Your task to perform on an android device: install app "Facebook Messenger" Image 0: 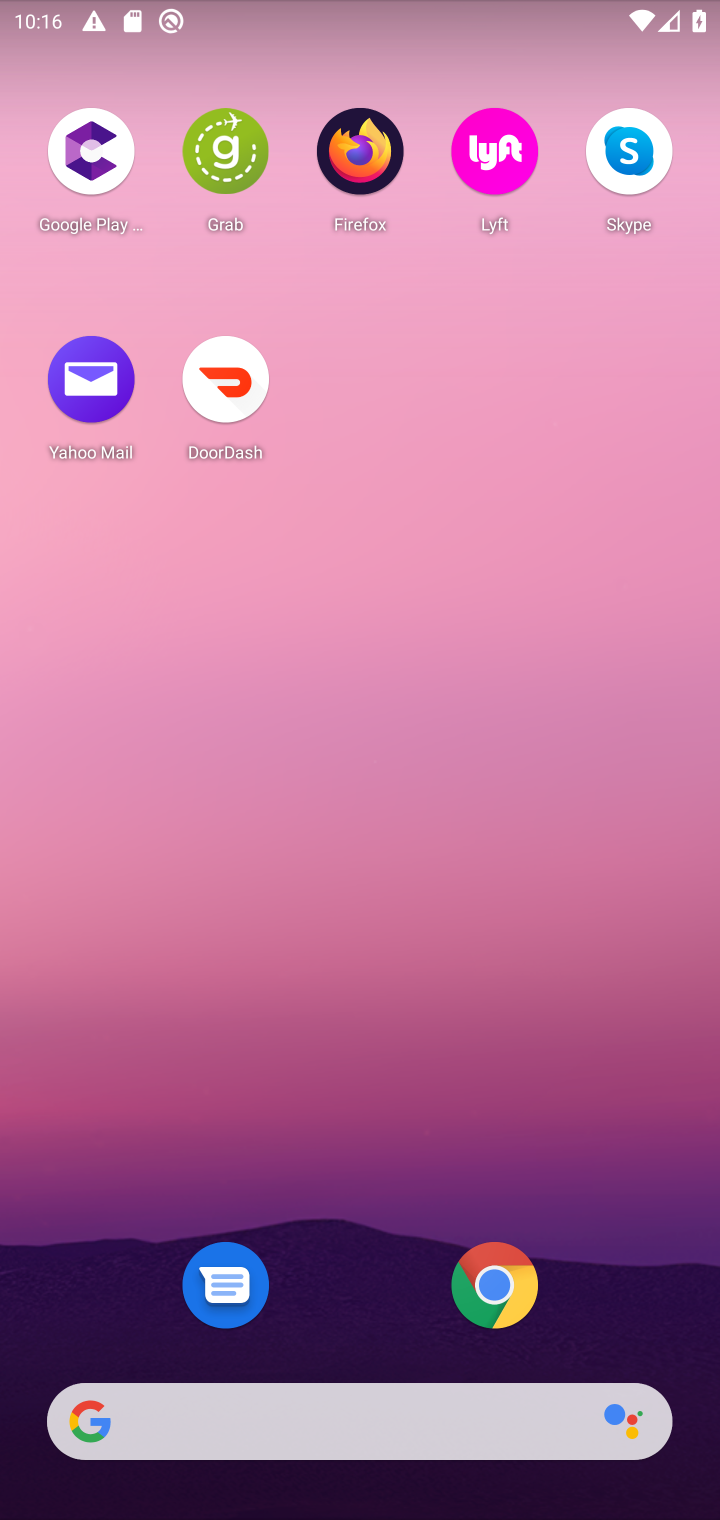
Step 0: drag from (596, 1293) to (407, 129)
Your task to perform on an android device: install app "Facebook Messenger" Image 1: 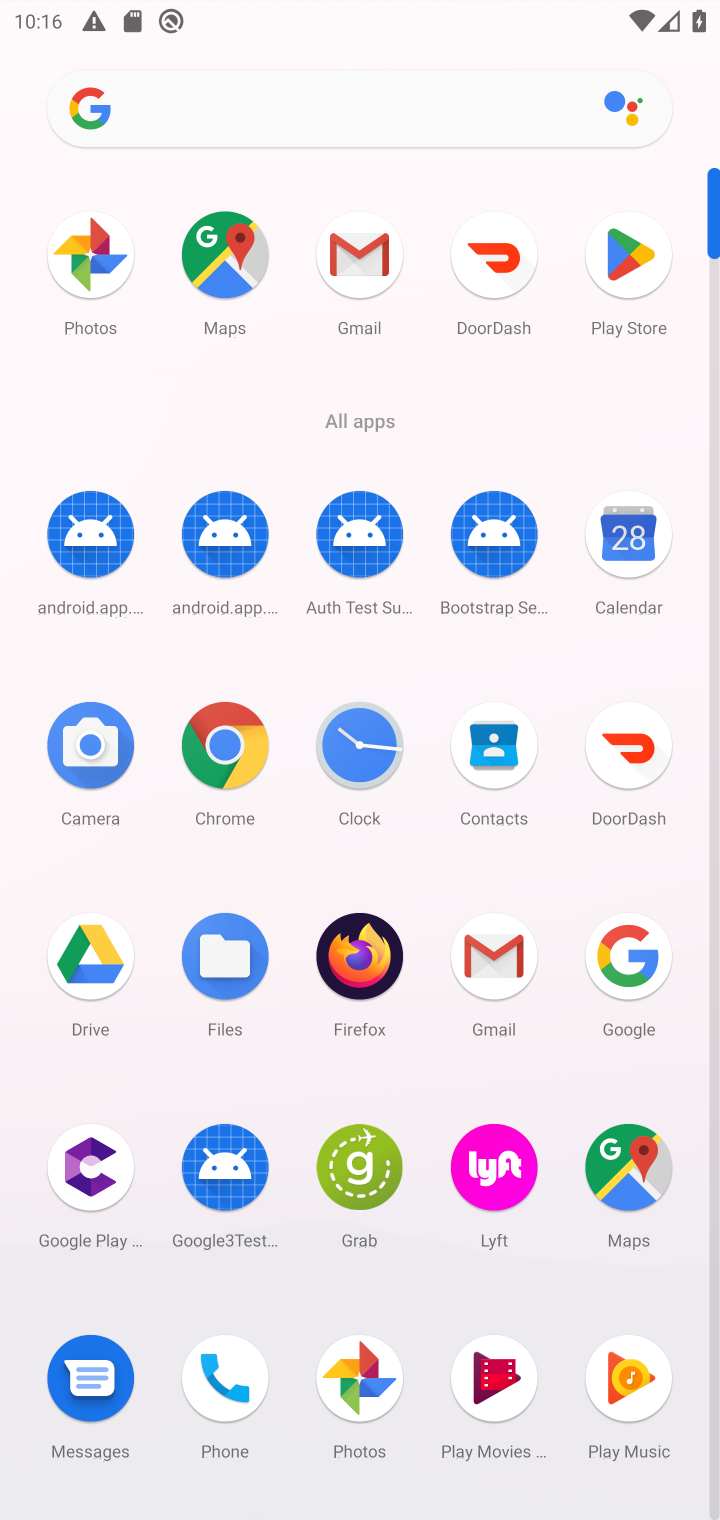
Step 1: click (621, 283)
Your task to perform on an android device: install app "Facebook Messenger" Image 2: 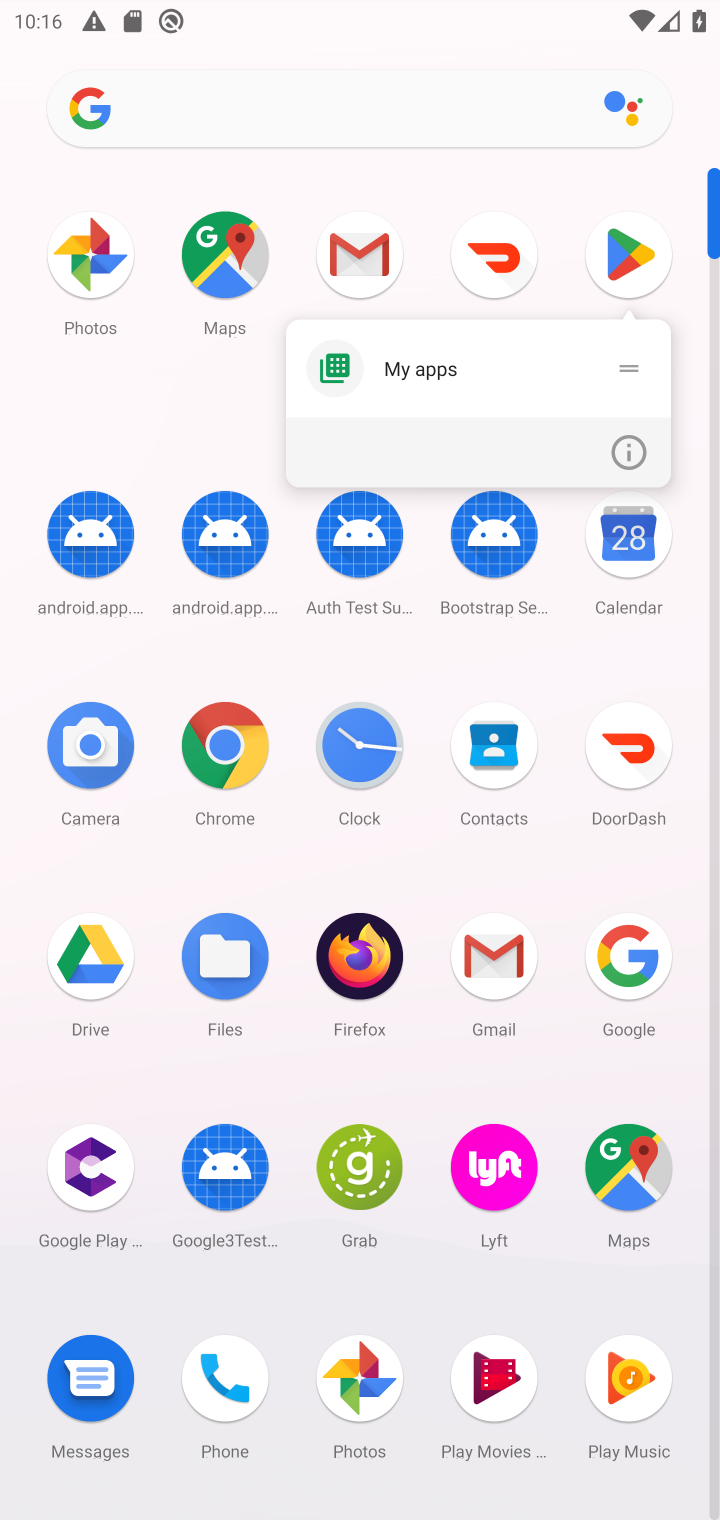
Step 2: click (621, 263)
Your task to perform on an android device: install app "Facebook Messenger" Image 3: 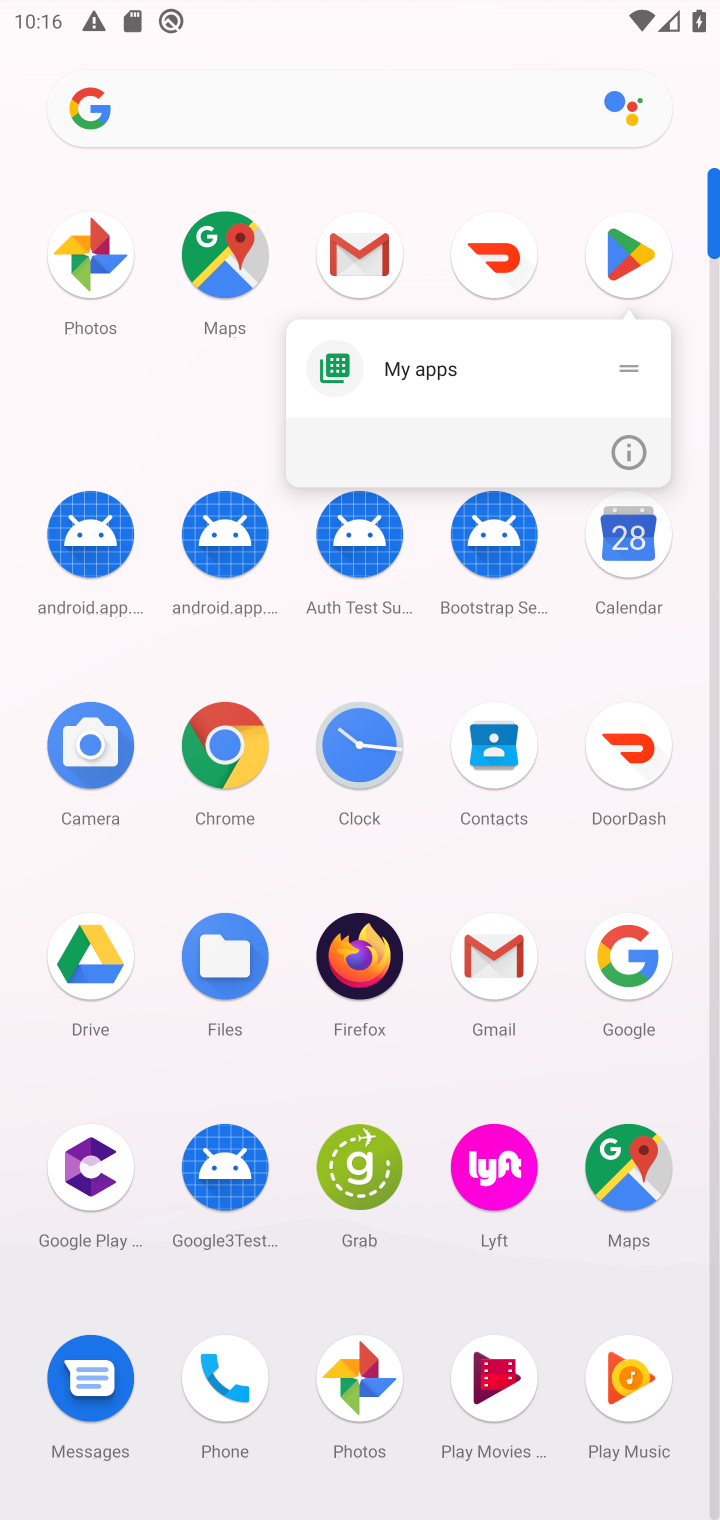
Step 3: click (632, 268)
Your task to perform on an android device: install app "Facebook Messenger" Image 4: 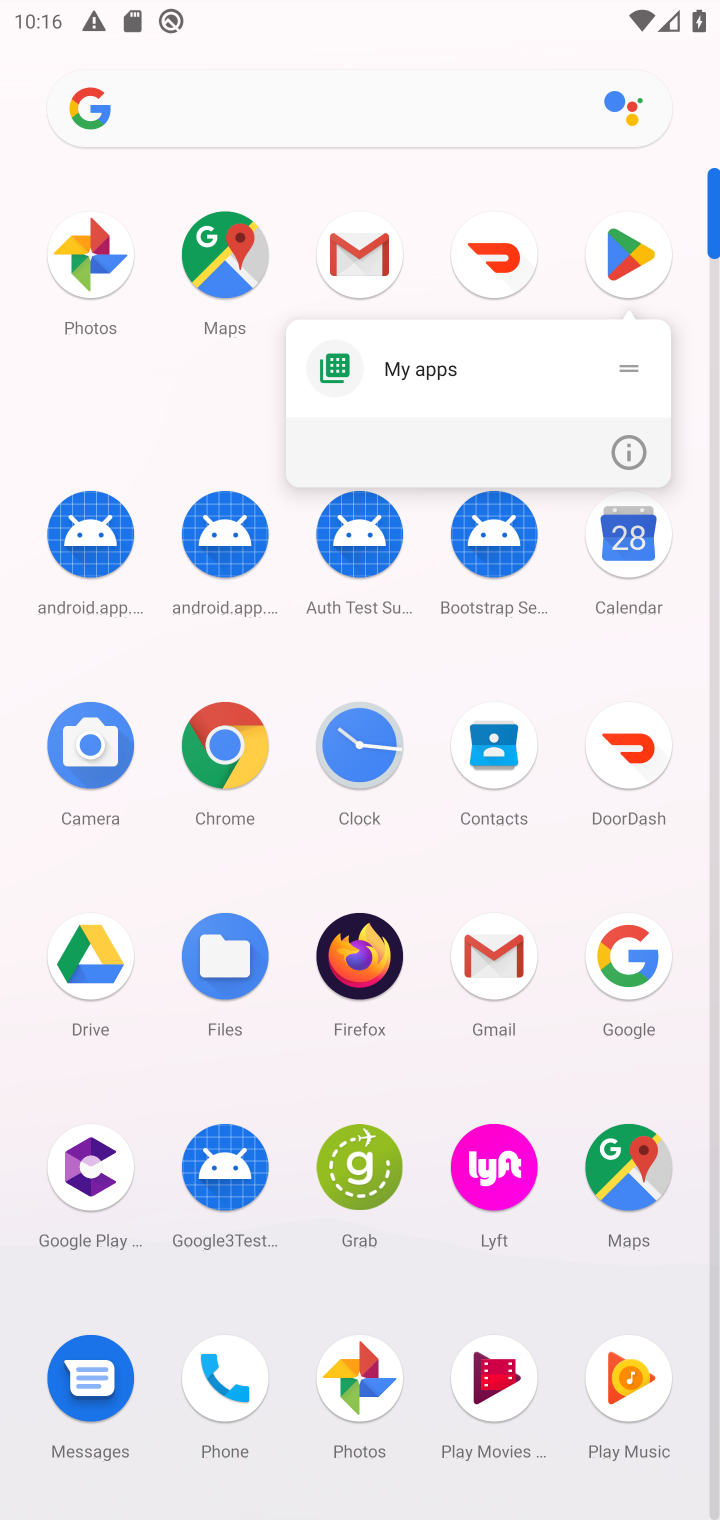
Step 4: click (560, 1039)
Your task to perform on an android device: install app "Facebook Messenger" Image 5: 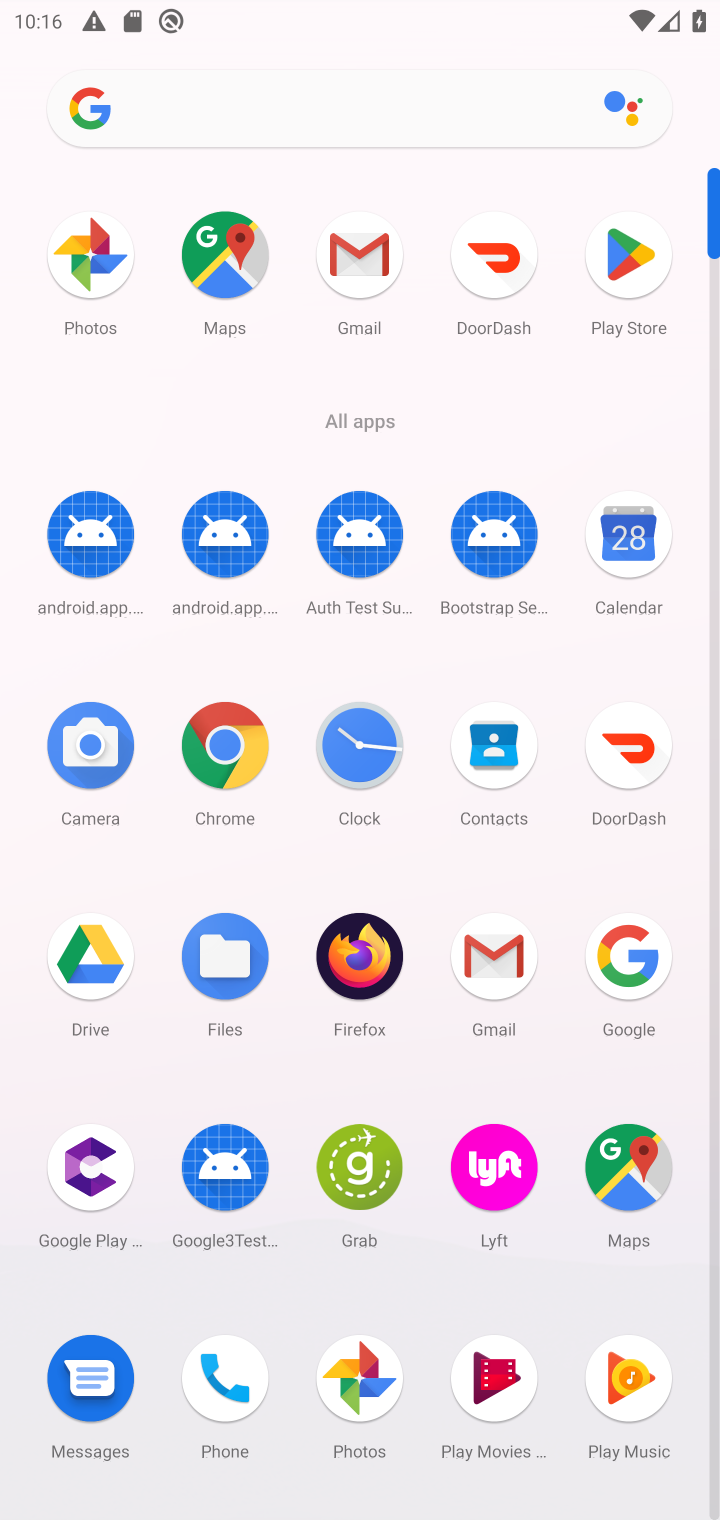
Step 5: click (622, 252)
Your task to perform on an android device: install app "Facebook Messenger" Image 6: 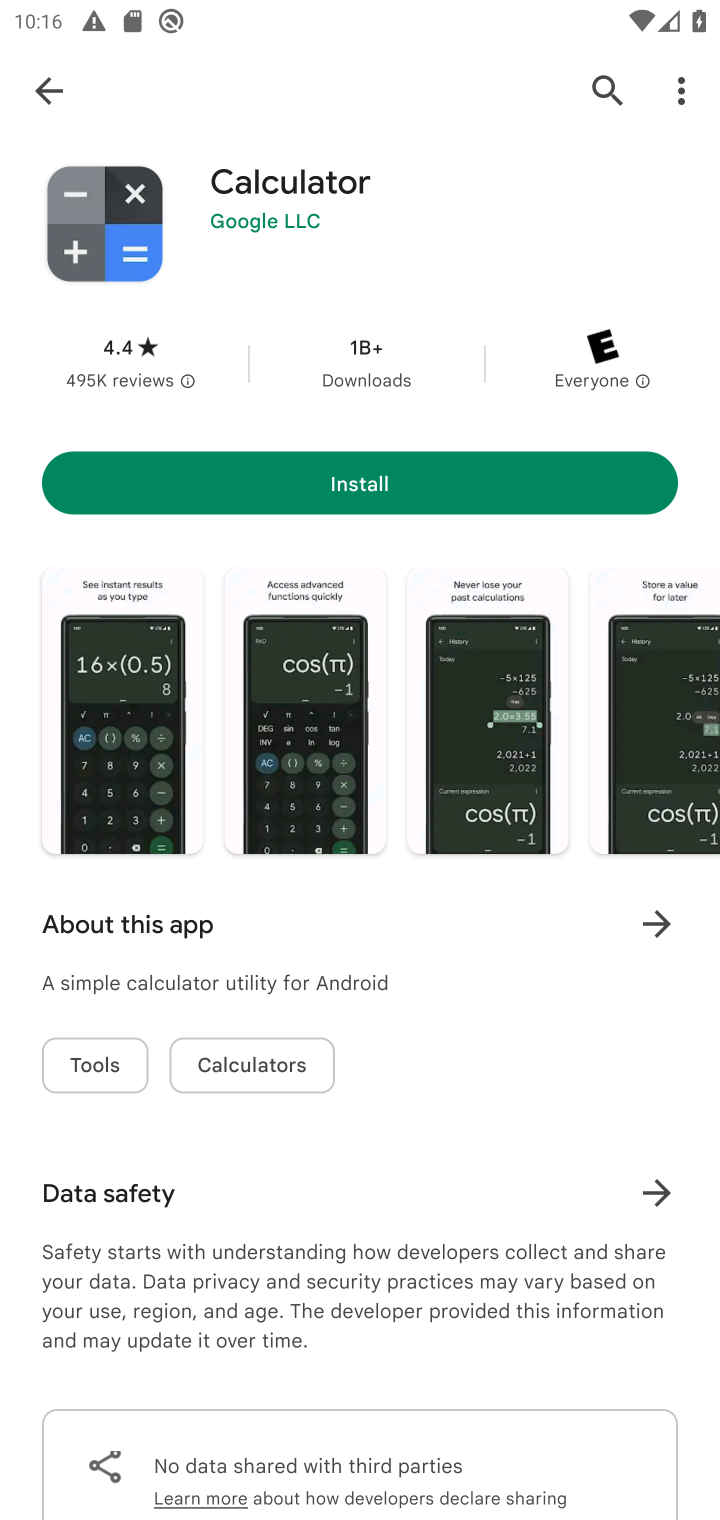
Step 6: click (607, 89)
Your task to perform on an android device: install app "Facebook Messenger" Image 7: 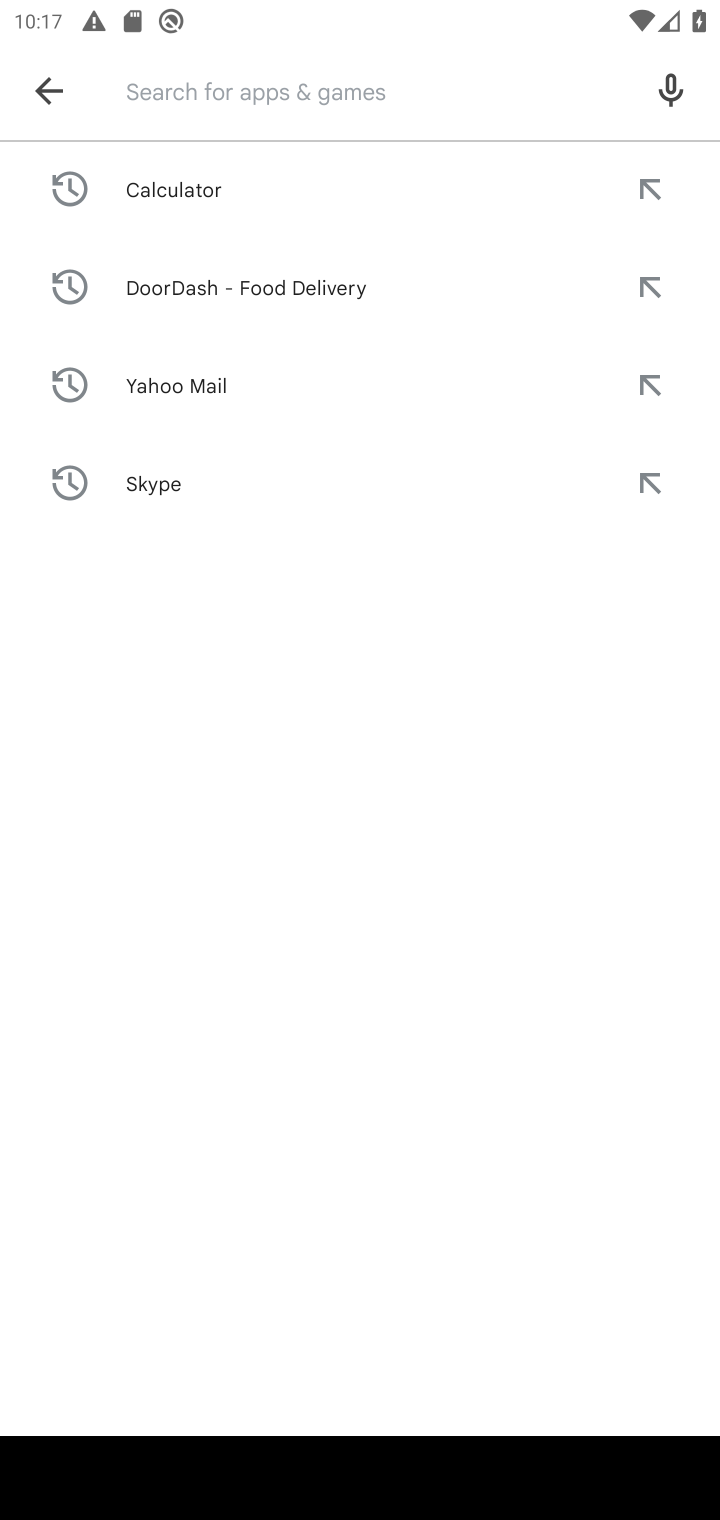
Step 7: type "Facebook Messenger"
Your task to perform on an android device: install app "Facebook Messenger" Image 8: 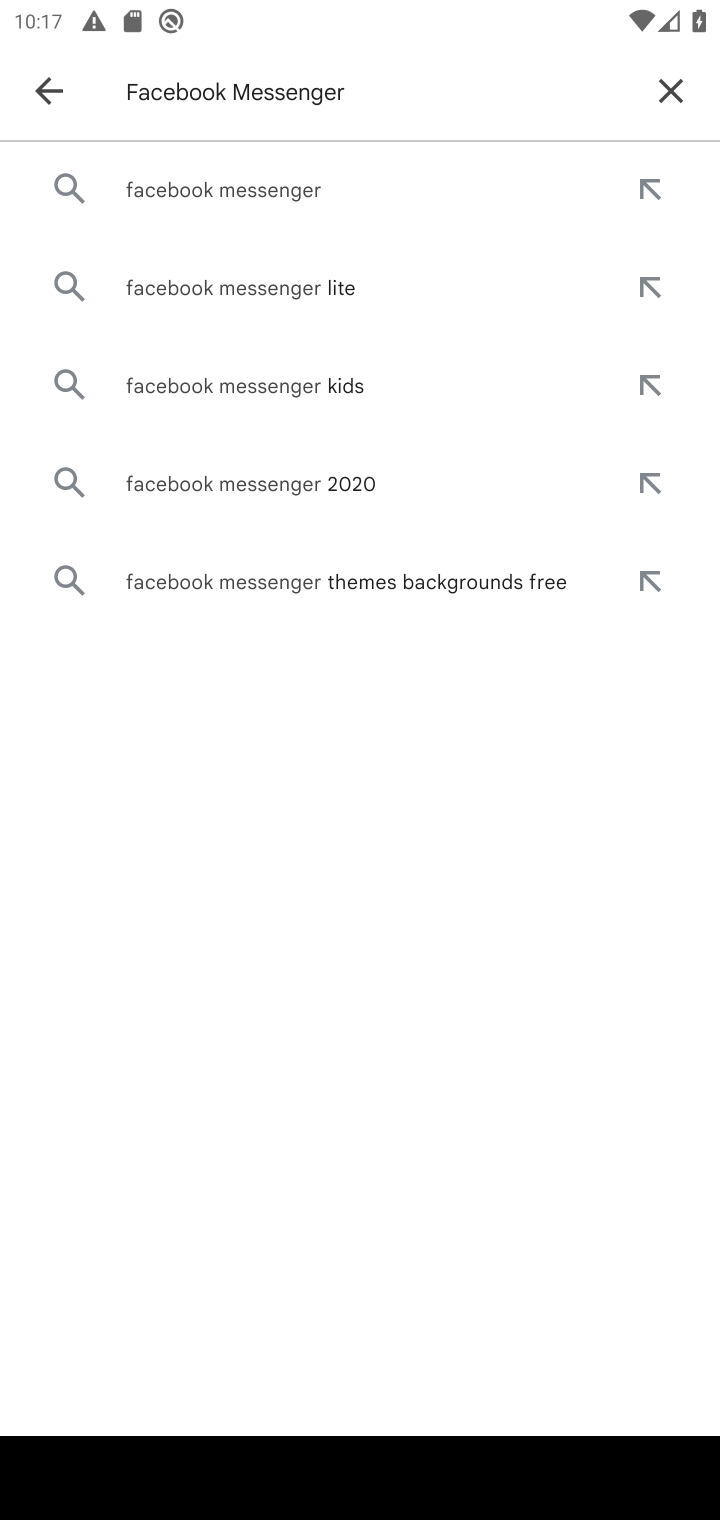
Step 8: press enter
Your task to perform on an android device: install app "Facebook Messenger" Image 9: 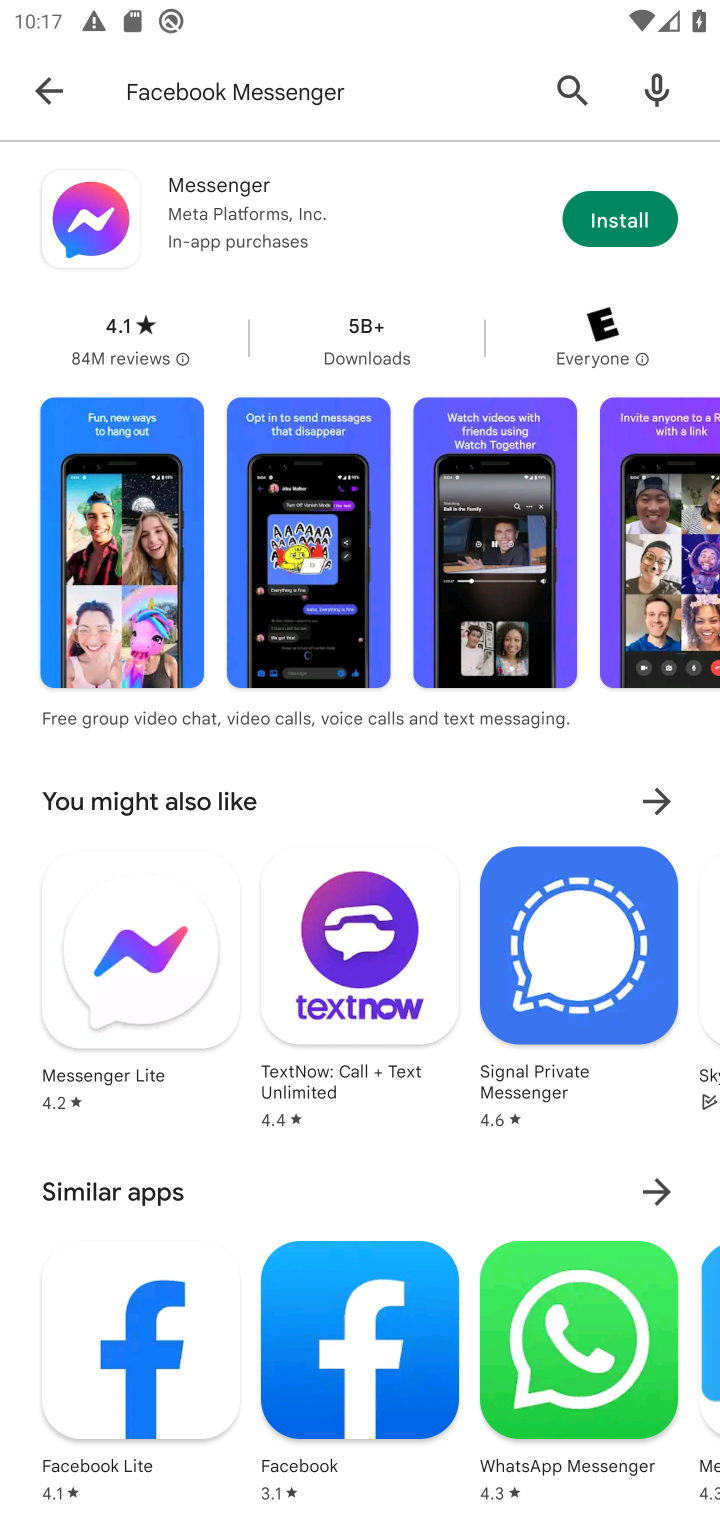
Step 9: click (630, 212)
Your task to perform on an android device: install app "Facebook Messenger" Image 10: 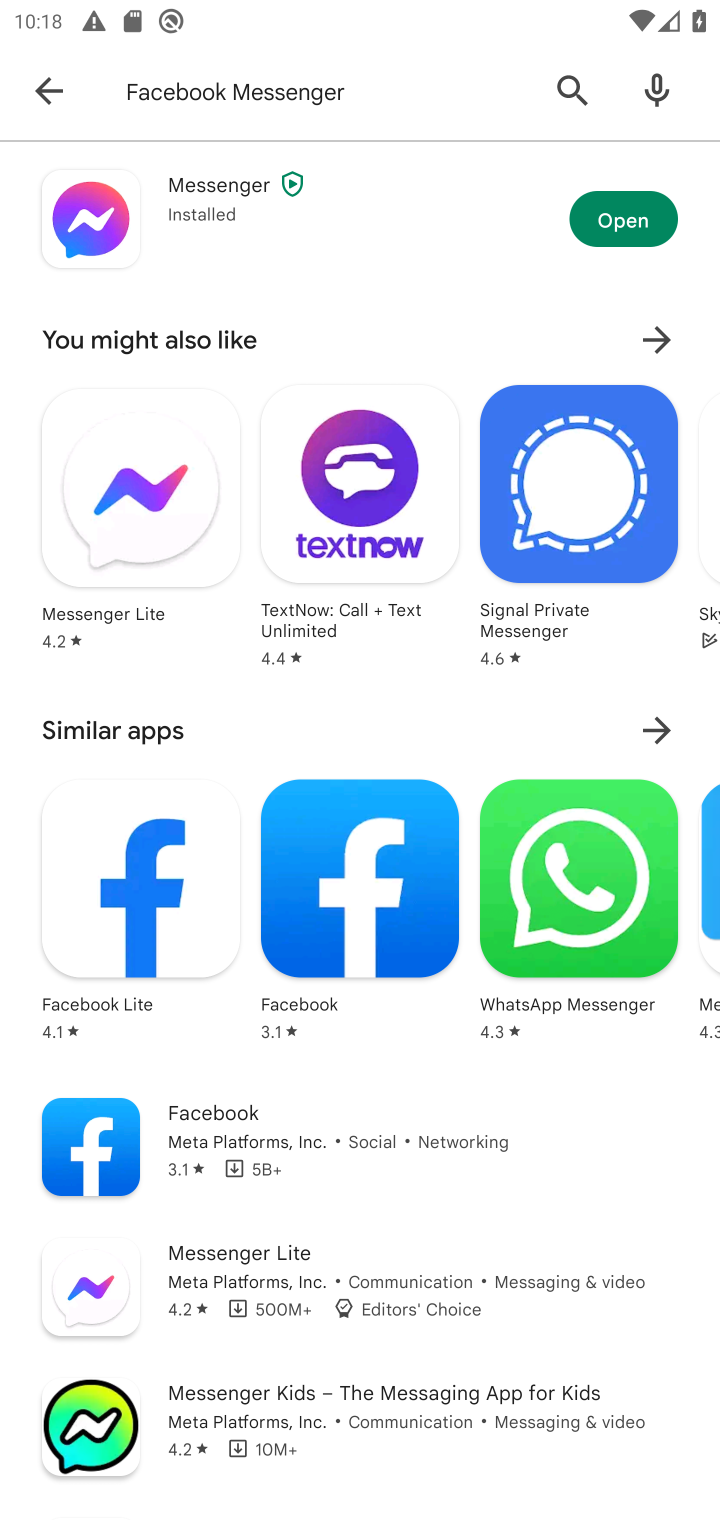
Step 10: task complete